Your task to perform on an android device: turn vacation reply on in the gmail app Image 0: 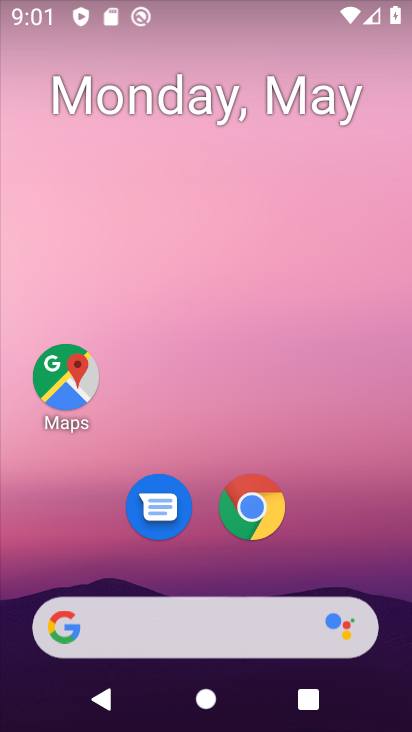
Step 0: drag from (295, 666) to (292, 83)
Your task to perform on an android device: turn vacation reply on in the gmail app Image 1: 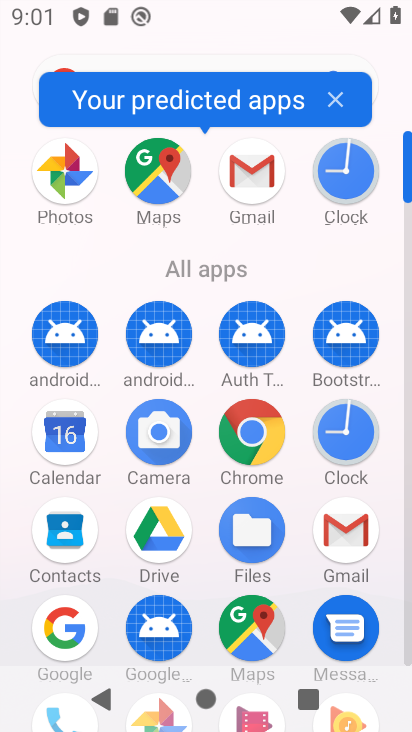
Step 1: click (344, 515)
Your task to perform on an android device: turn vacation reply on in the gmail app Image 2: 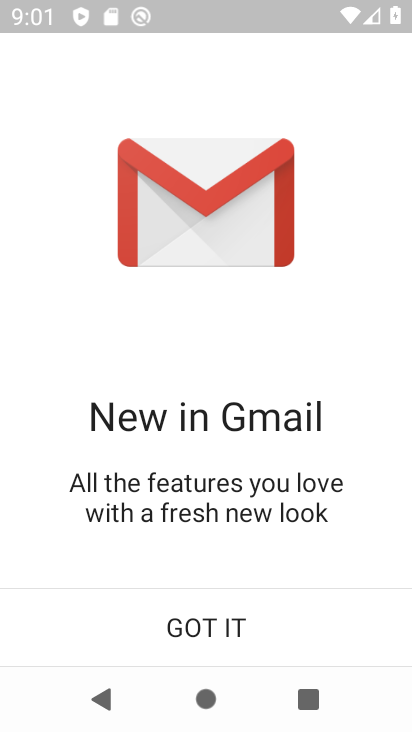
Step 2: click (248, 639)
Your task to perform on an android device: turn vacation reply on in the gmail app Image 3: 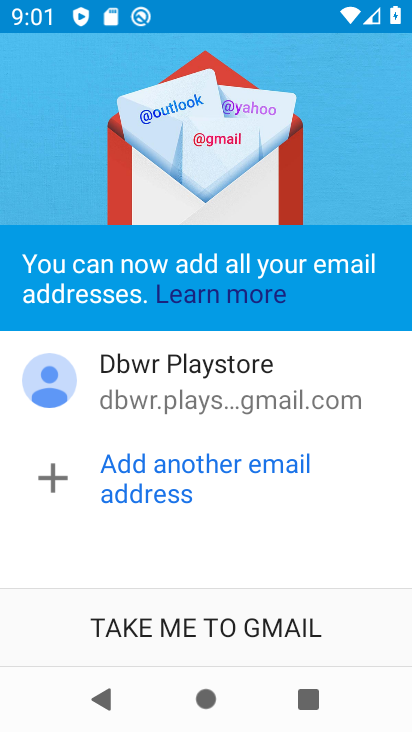
Step 3: click (248, 639)
Your task to perform on an android device: turn vacation reply on in the gmail app Image 4: 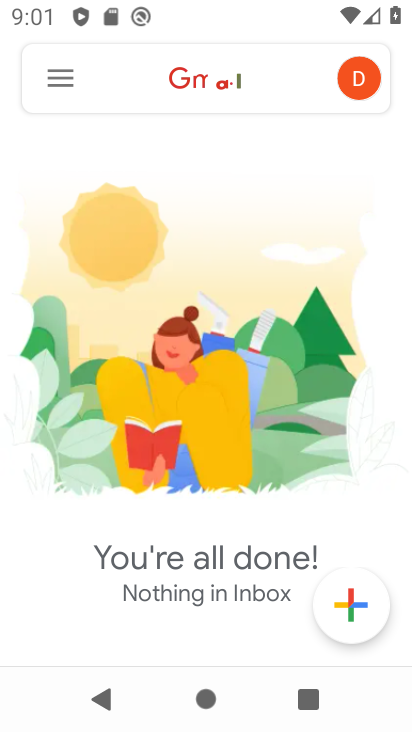
Step 4: click (53, 74)
Your task to perform on an android device: turn vacation reply on in the gmail app Image 5: 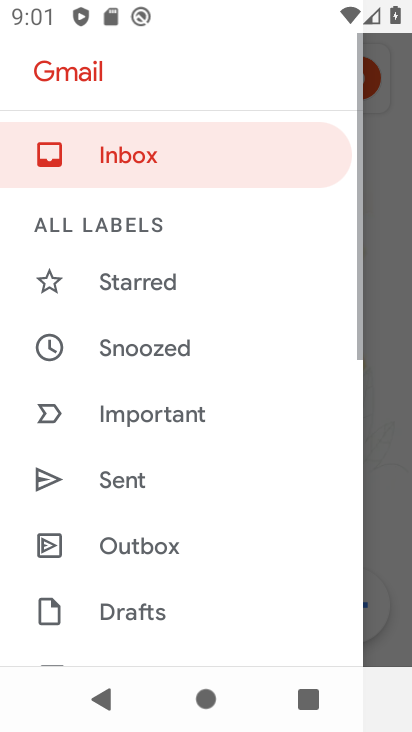
Step 5: drag from (174, 477) to (166, 107)
Your task to perform on an android device: turn vacation reply on in the gmail app Image 6: 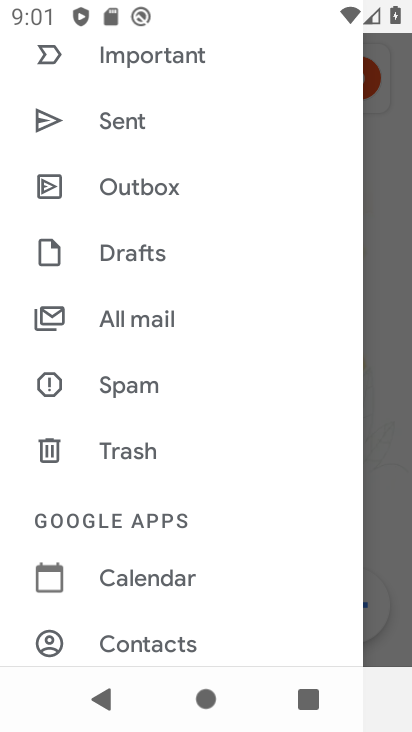
Step 6: drag from (208, 635) to (259, 213)
Your task to perform on an android device: turn vacation reply on in the gmail app Image 7: 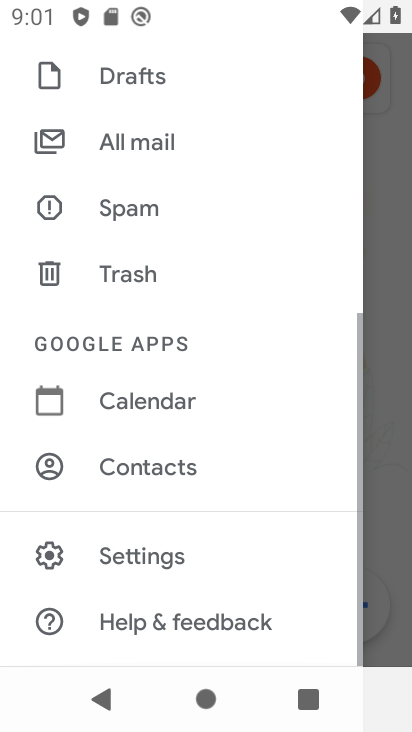
Step 7: click (179, 550)
Your task to perform on an android device: turn vacation reply on in the gmail app Image 8: 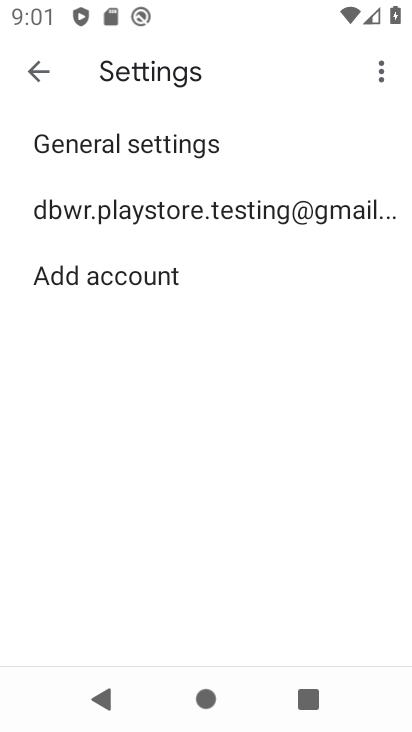
Step 8: click (184, 207)
Your task to perform on an android device: turn vacation reply on in the gmail app Image 9: 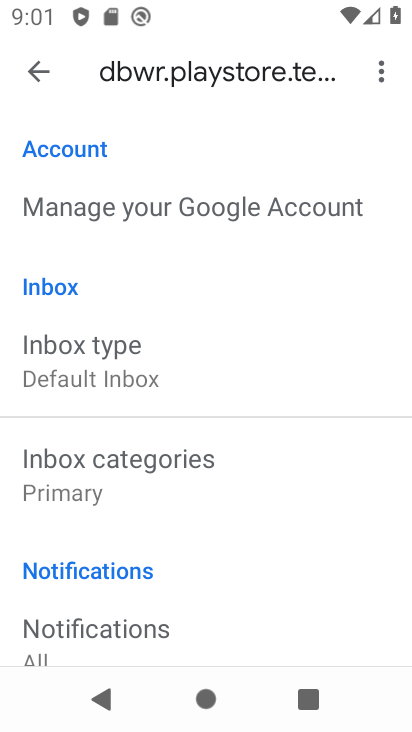
Step 9: drag from (106, 575) to (161, 215)
Your task to perform on an android device: turn vacation reply on in the gmail app Image 10: 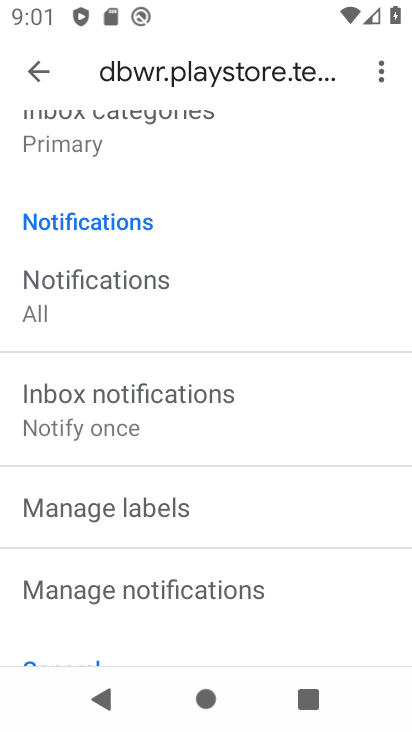
Step 10: drag from (176, 610) to (198, 251)
Your task to perform on an android device: turn vacation reply on in the gmail app Image 11: 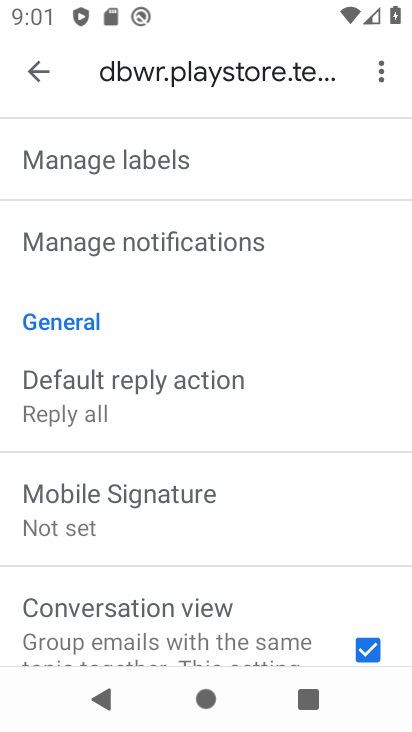
Step 11: drag from (200, 639) to (215, 260)
Your task to perform on an android device: turn vacation reply on in the gmail app Image 12: 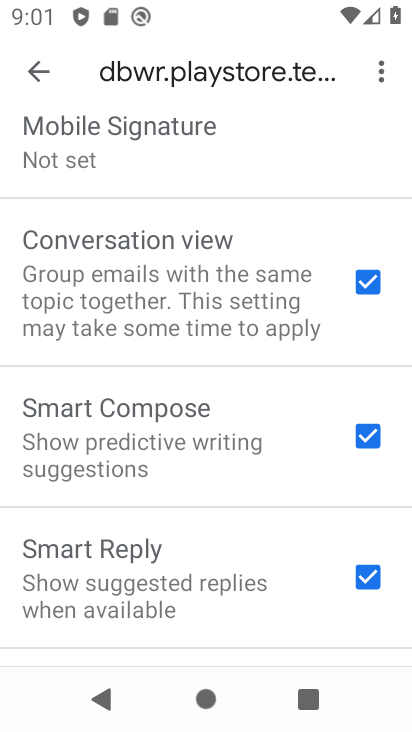
Step 12: drag from (255, 570) to (253, 263)
Your task to perform on an android device: turn vacation reply on in the gmail app Image 13: 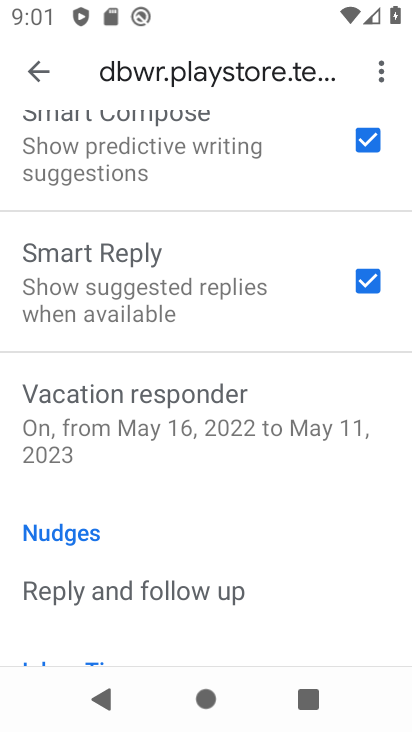
Step 13: click (325, 405)
Your task to perform on an android device: turn vacation reply on in the gmail app Image 14: 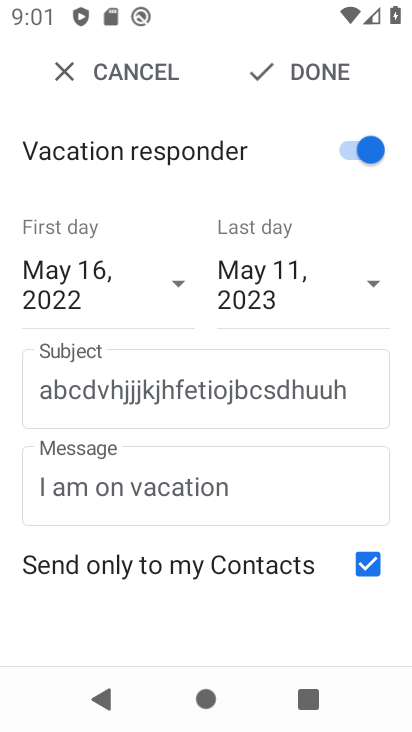
Step 14: click (334, 63)
Your task to perform on an android device: turn vacation reply on in the gmail app Image 15: 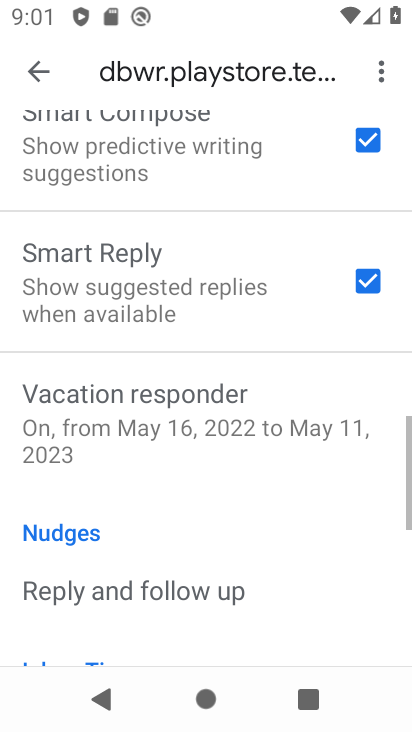
Step 15: task complete